Your task to perform on an android device: allow cookies in the chrome app Image 0: 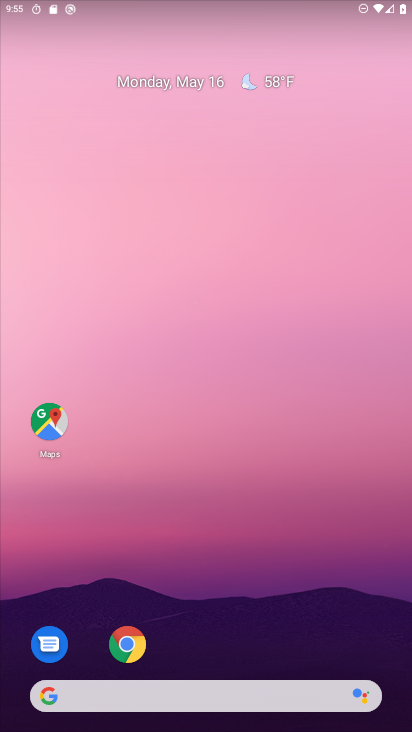
Step 0: drag from (223, 691) to (188, 48)
Your task to perform on an android device: allow cookies in the chrome app Image 1: 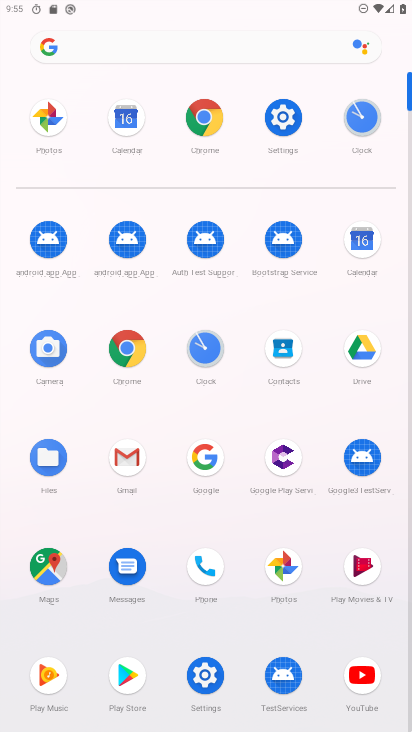
Step 1: click (118, 350)
Your task to perform on an android device: allow cookies in the chrome app Image 2: 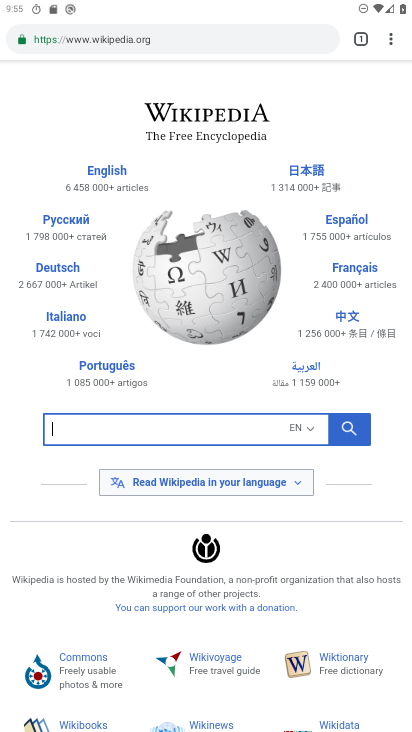
Step 2: click (388, 32)
Your task to perform on an android device: allow cookies in the chrome app Image 3: 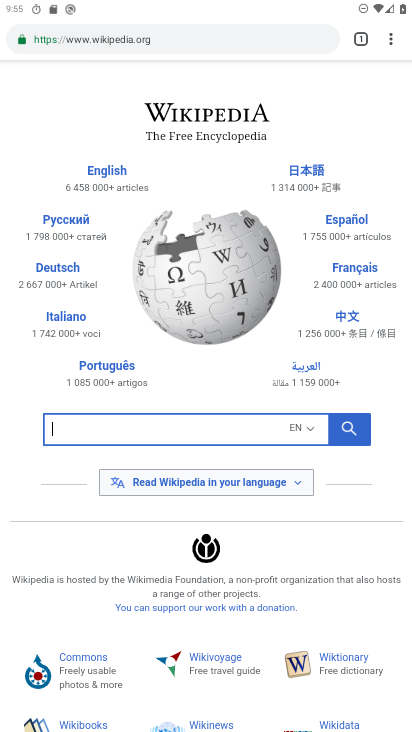
Step 3: drag from (388, 32) to (258, 468)
Your task to perform on an android device: allow cookies in the chrome app Image 4: 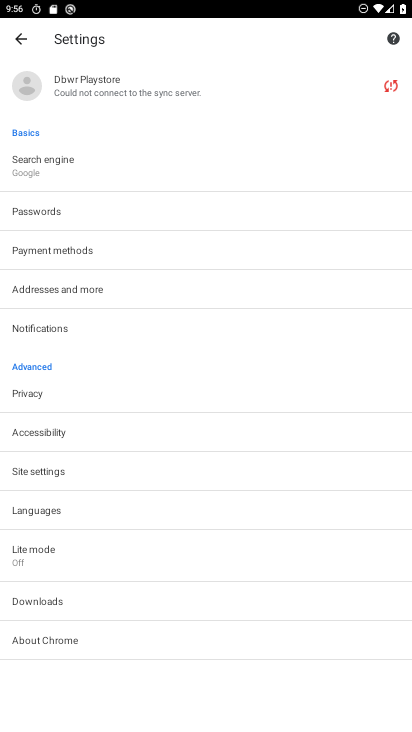
Step 4: click (62, 469)
Your task to perform on an android device: allow cookies in the chrome app Image 5: 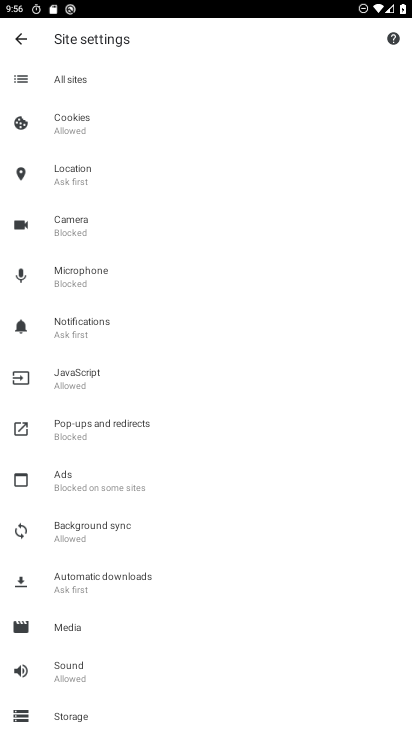
Step 5: click (58, 113)
Your task to perform on an android device: allow cookies in the chrome app Image 6: 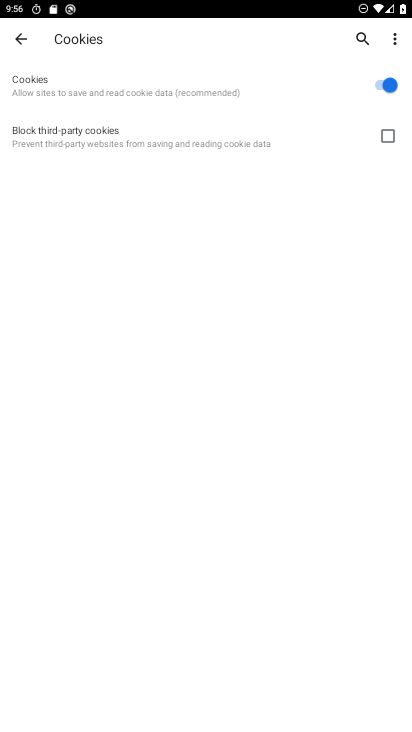
Step 6: task complete